Your task to perform on an android device: open the mobile data screen to see how much data has been used Image 0: 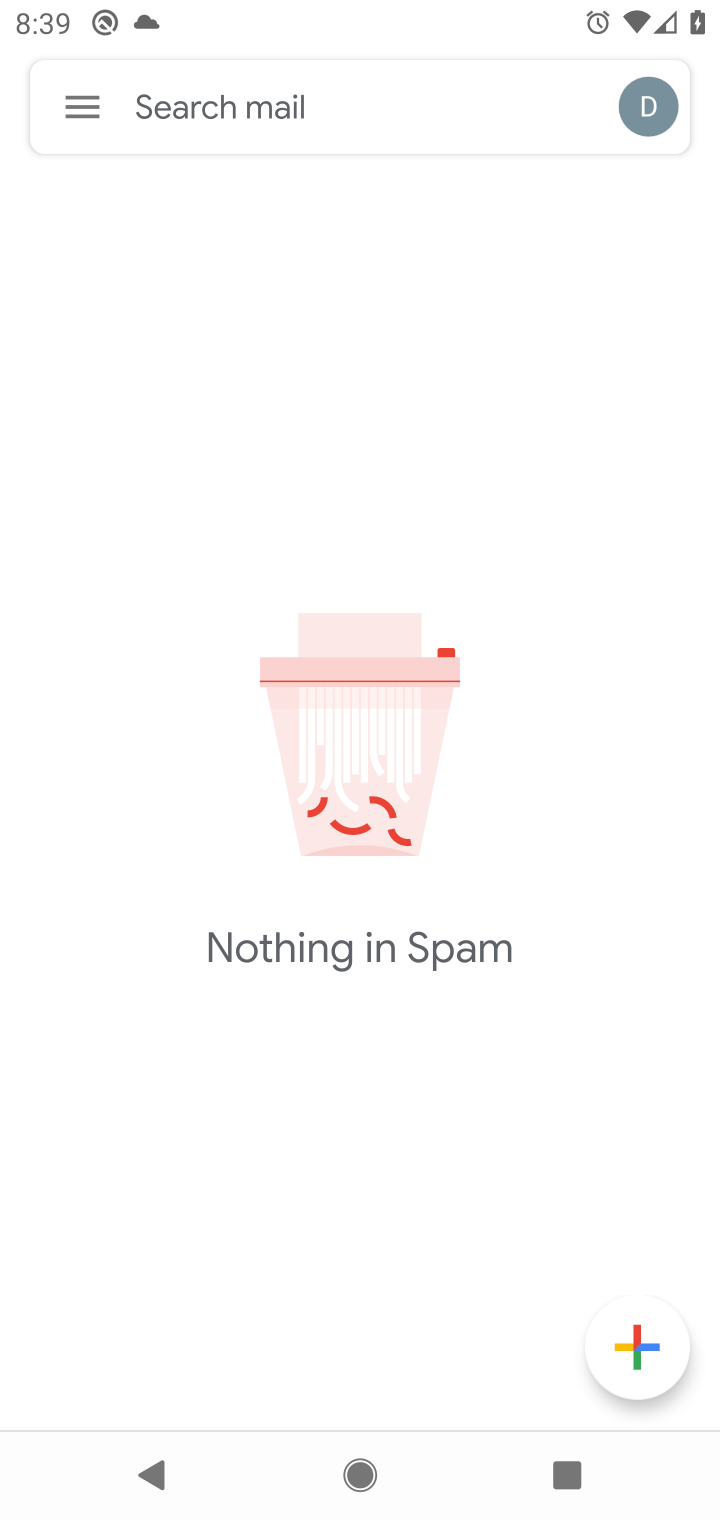
Step 0: press home button
Your task to perform on an android device: open the mobile data screen to see how much data has been used Image 1: 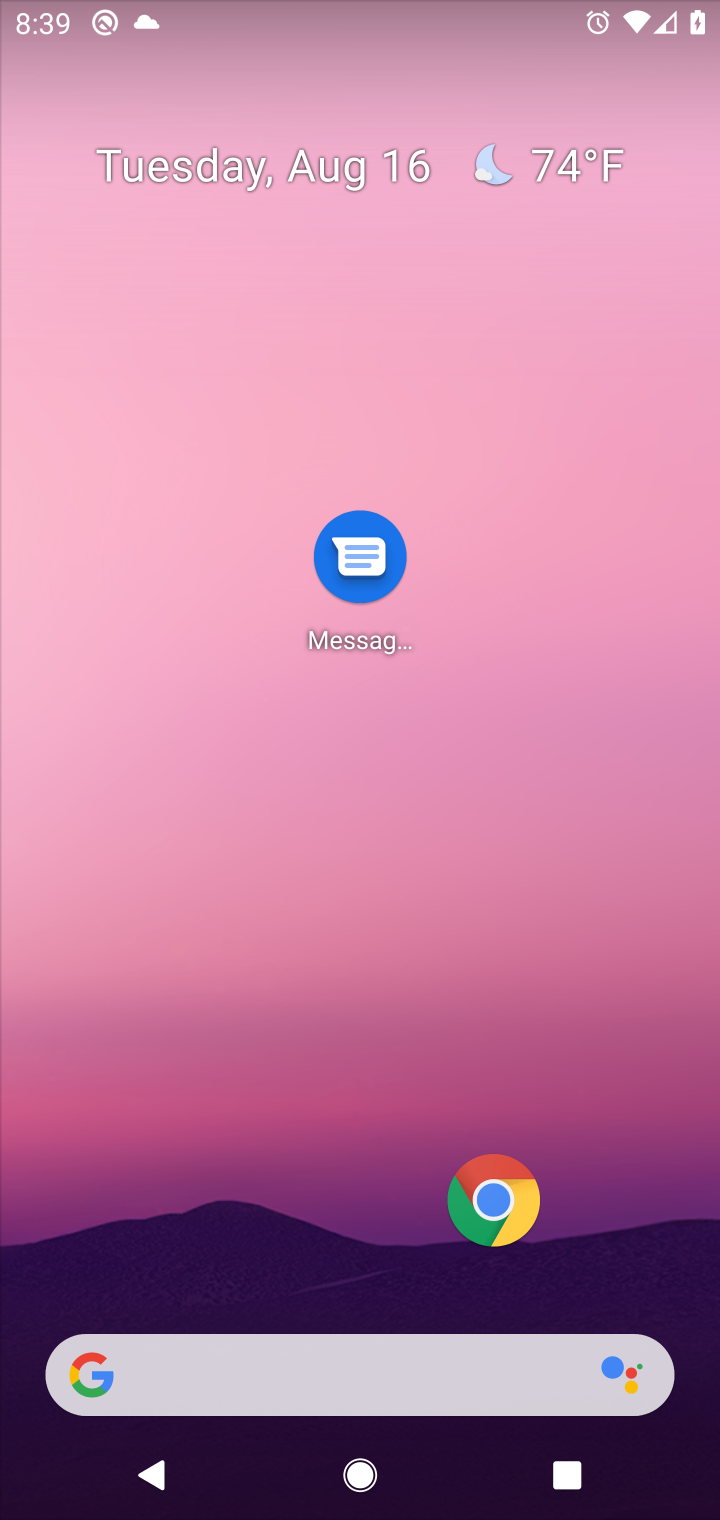
Step 1: drag from (231, 1079) to (314, 241)
Your task to perform on an android device: open the mobile data screen to see how much data has been used Image 2: 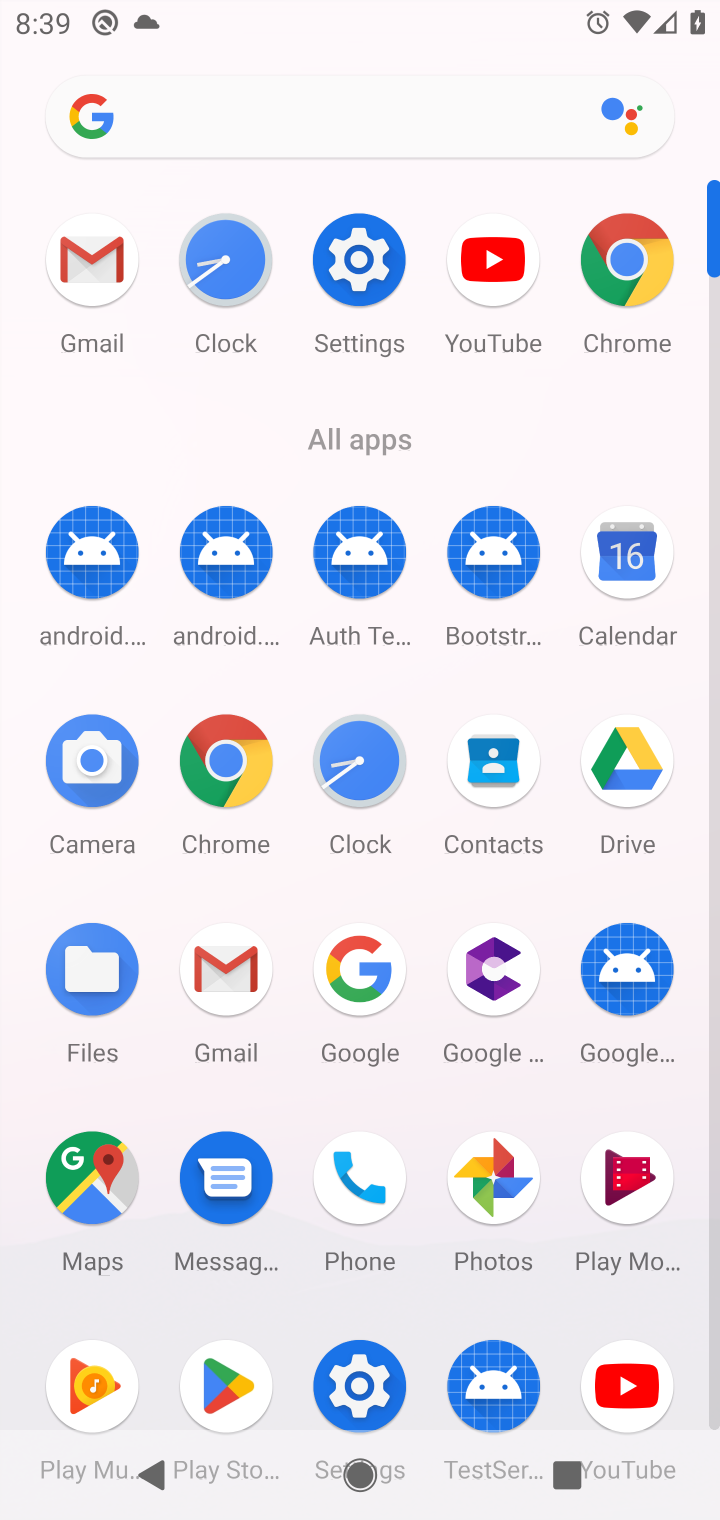
Step 2: click (355, 1393)
Your task to perform on an android device: open the mobile data screen to see how much data has been used Image 3: 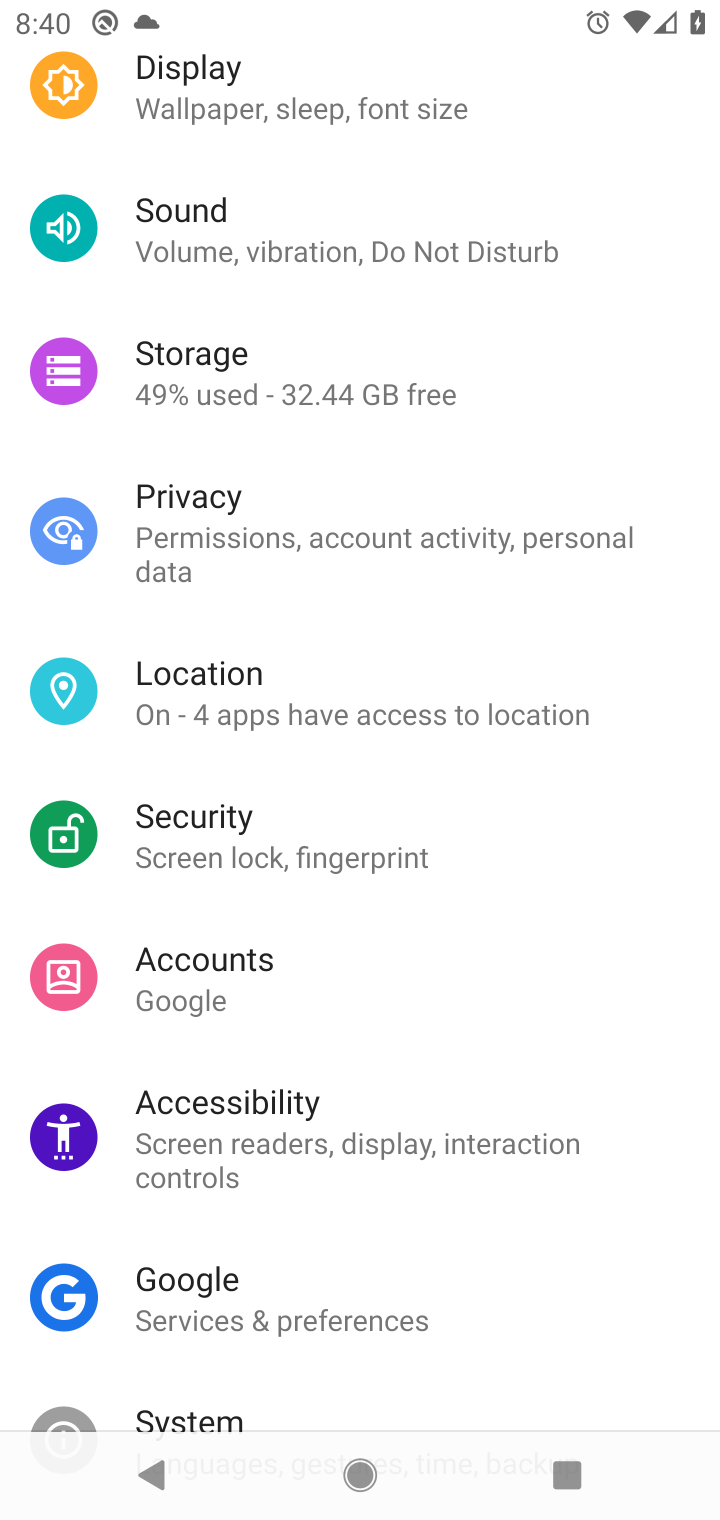
Step 3: drag from (556, 89) to (513, 959)
Your task to perform on an android device: open the mobile data screen to see how much data has been used Image 4: 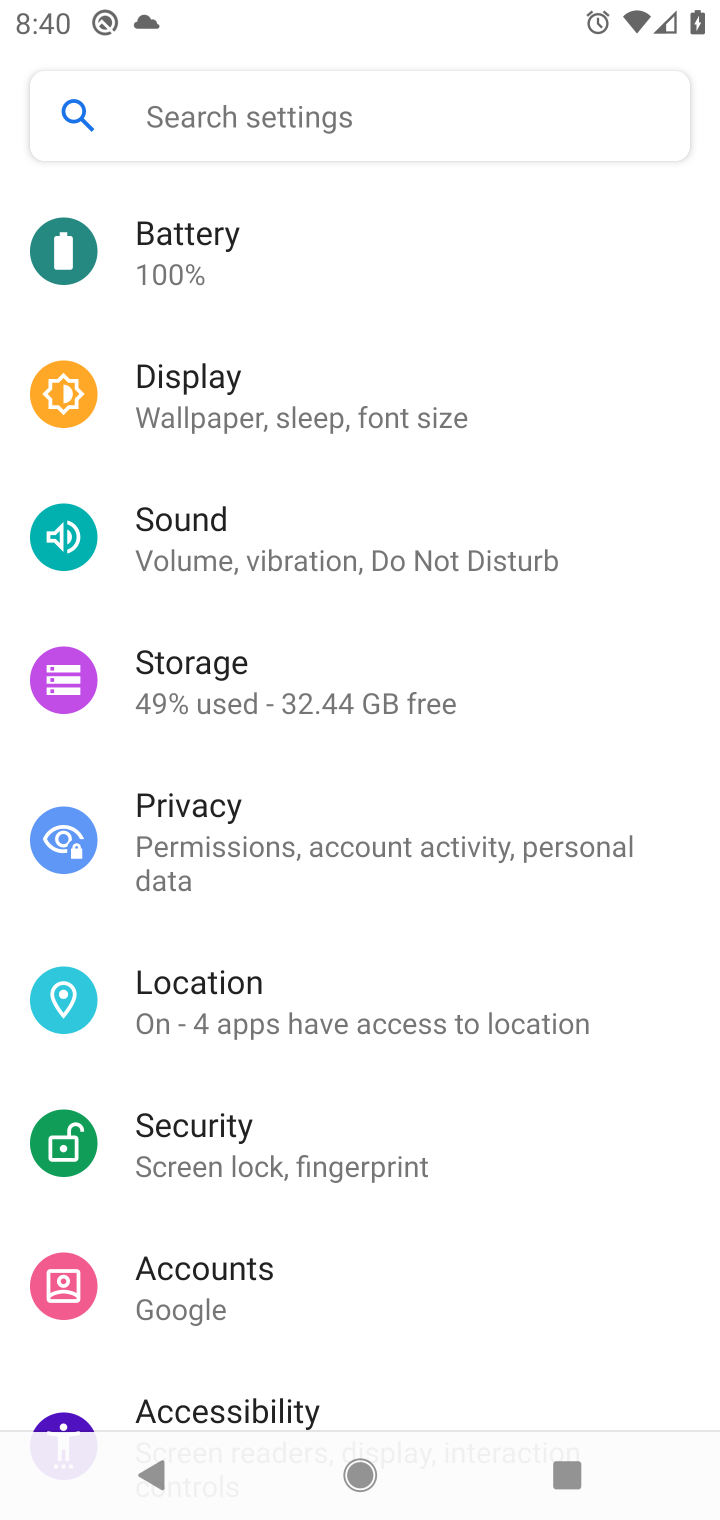
Step 4: drag from (364, 228) to (190, 1408)
Your task to perform on an android device: open the mobile data screen to see how much data has been used Image 5: 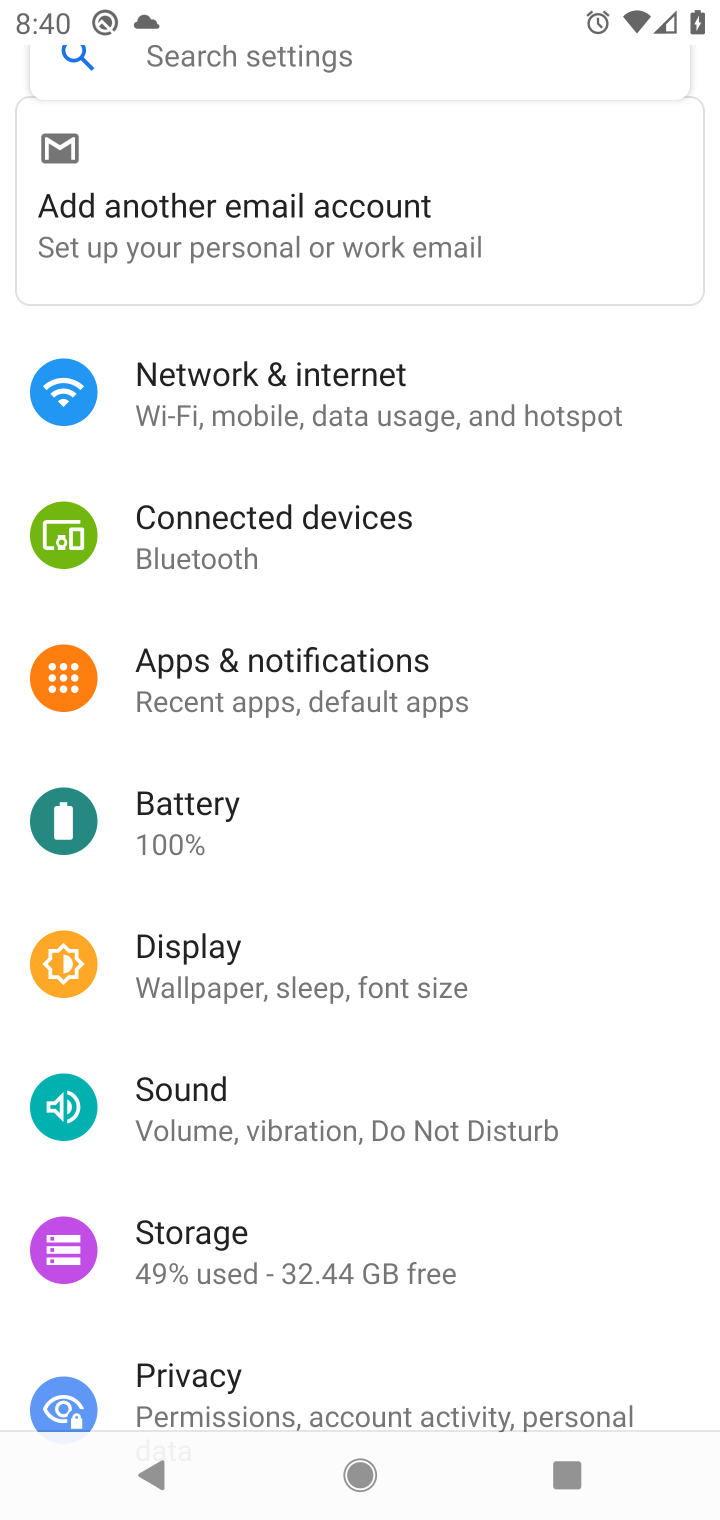
Step 5: click (292, 426)
Your task to perform on an android device: open the mobile data screen to see how much data has been used Image 6: 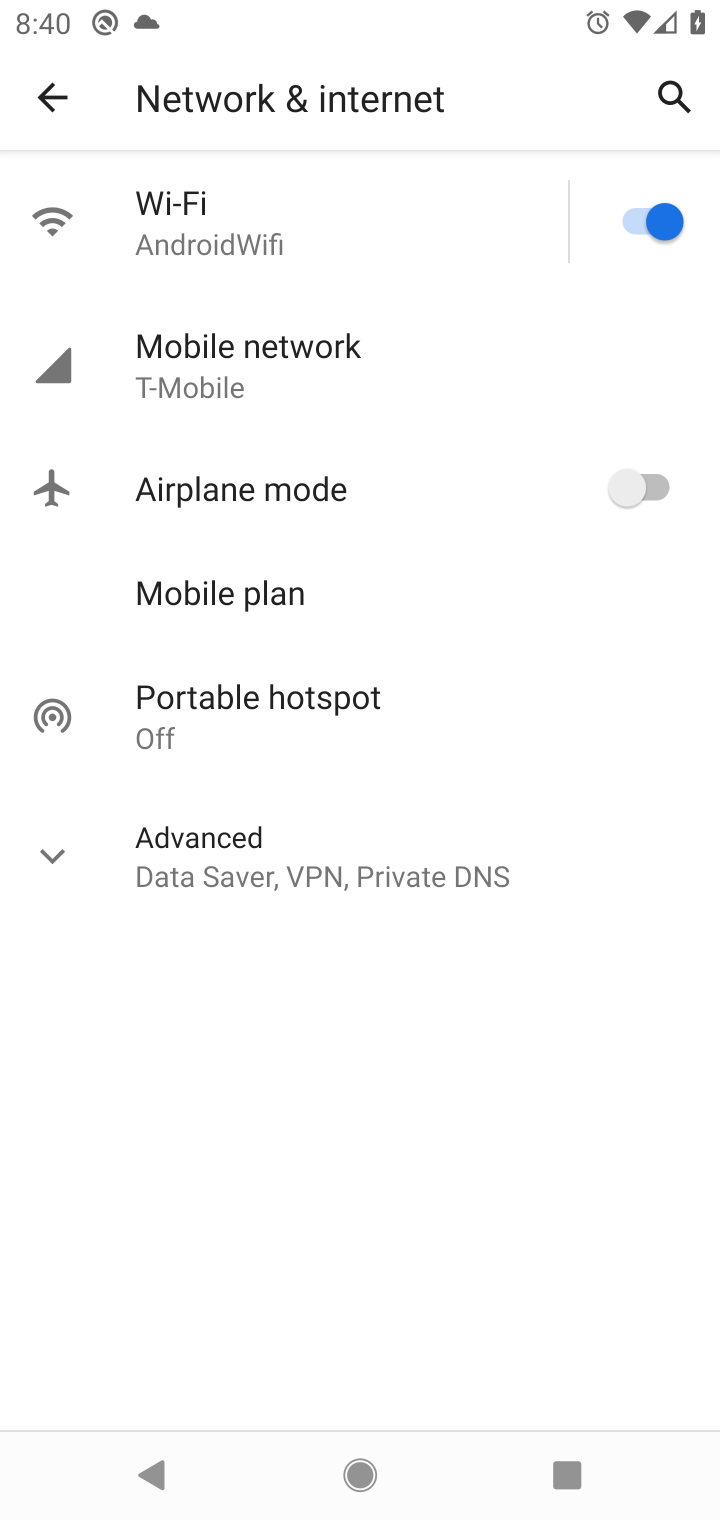
Step 6: click (276, 869)
Your task to perform on an android device: open the mobile data screen to see how much data has been used Image 7: 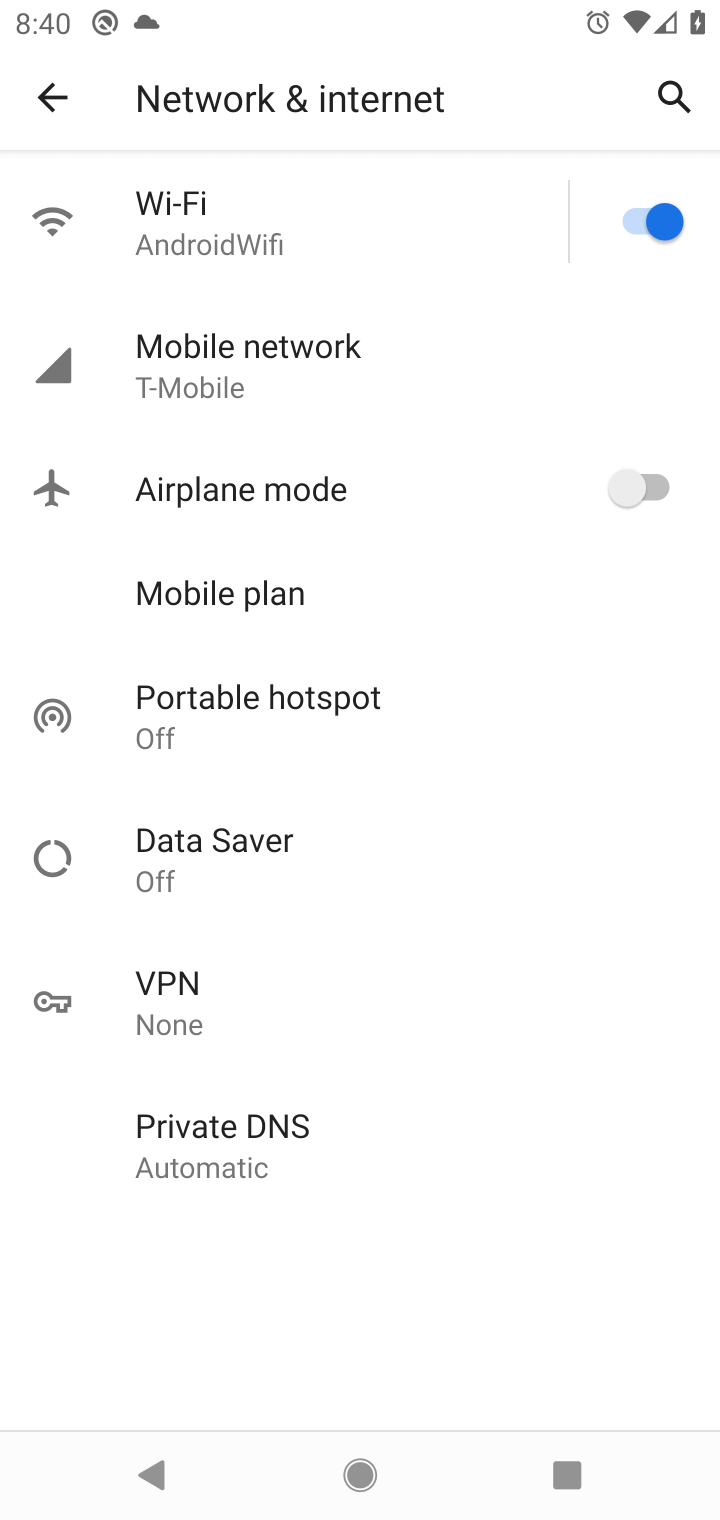
Step 7: click (235, 361)
Your task to perform on an android device: open the mobile data screen to see how much data has been used Image 8: 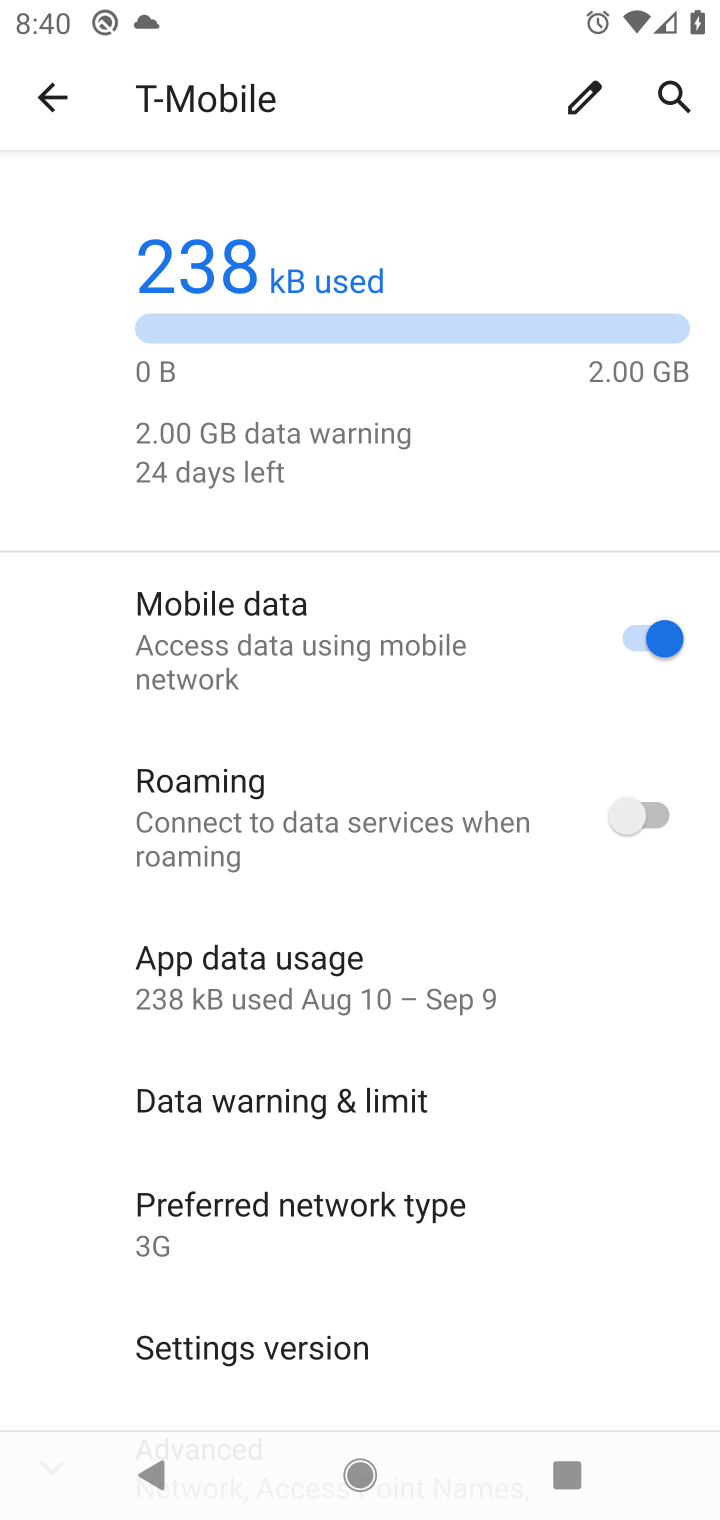
Step 8: task complete